Your task to perform on an android device: turn off javascript in the chrome app Image 0: 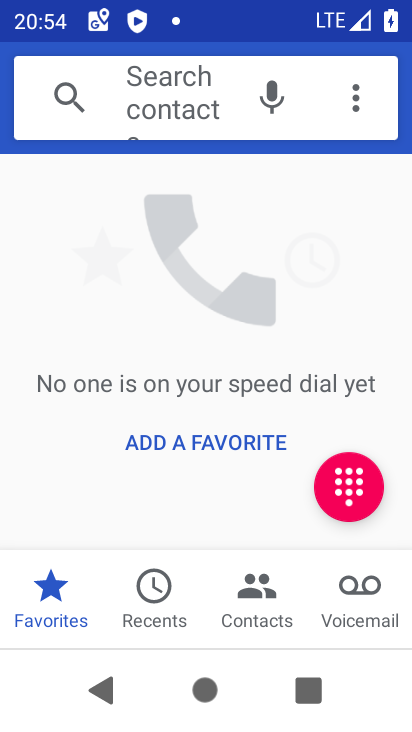
Step 0: press home button
Your task to perform on an android device: turn off javascript in the chrome app Image 1: 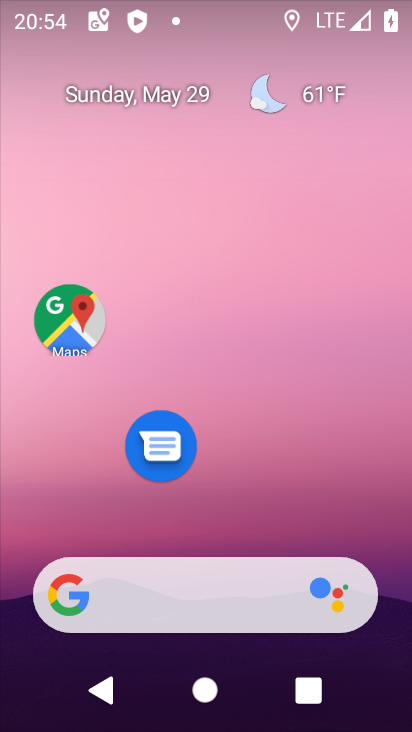
Step 1: drag from (221, 479) to (249, 226)
Your task to perform on an android device: turn off javascript in the chrome app Image 2: 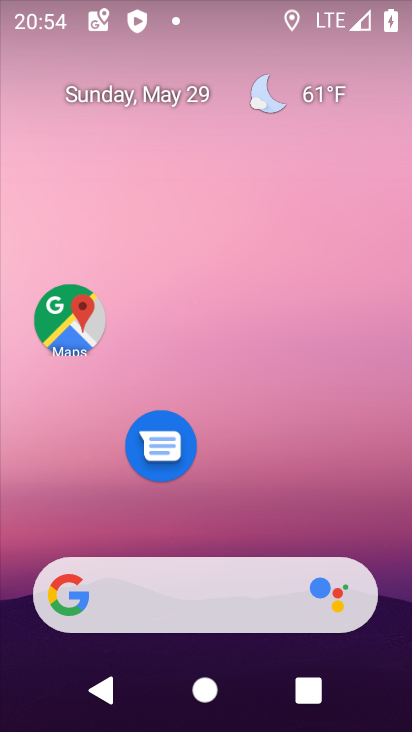
Step 2: drag from (243, 522) to (229, 136)
Your task to perform on an android device: turn off javascript in the chrome app Image 3: 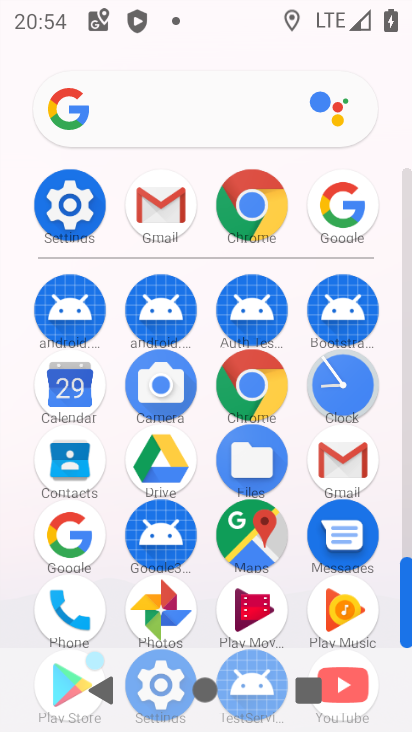
Step 3: click (250, 185)
Your task to perform on an android device: turn off javascript in the chrome app Image 4: 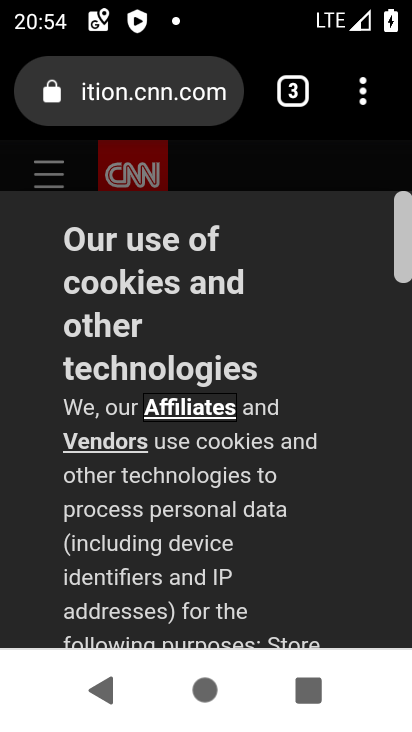
Step 4: drag from (371, 94) to (149, 484)
Your task to perform on an android device: turn off javascript in the chrome app Image 5: 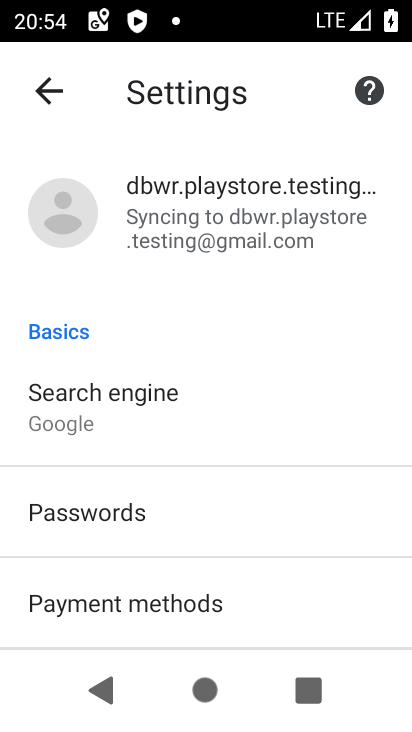
Step 5: drag from (217, 581) to (209, 292)
Your task to perform on an android device: turn off javascript in the chrome app Image 6: 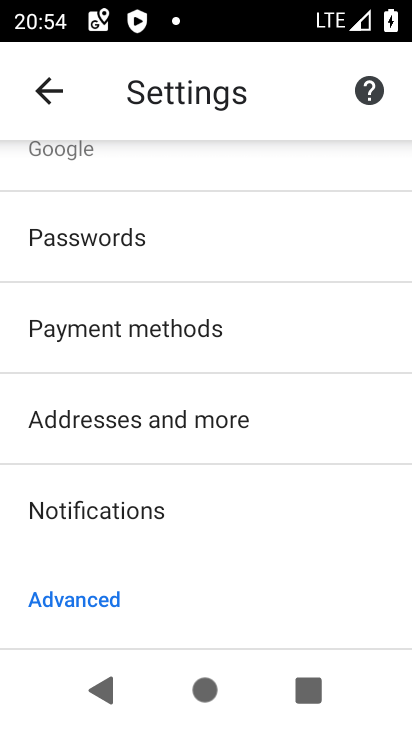
Step 6: drag from (225, 466) to (223, 279)
Your task to perform on an android device: turn off javascript in the chrome app Image 7: 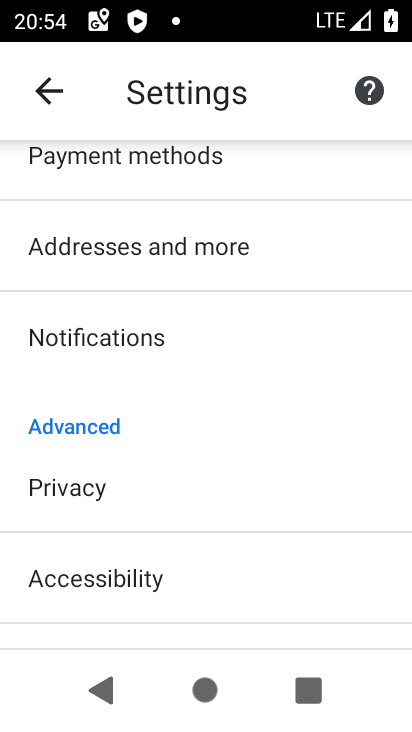
Step 7: drag from (235, 535) to (228, 290)
Your task to perform on an android device: turn off javascript in the chrome app Image 8: 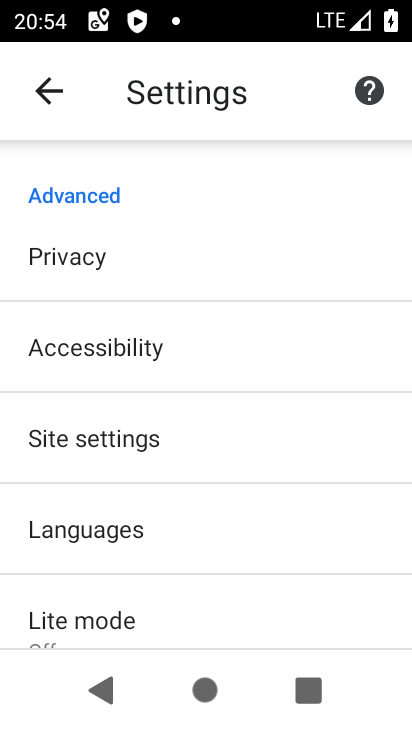
Step 8: click (142, 444)
Your task to perform on an android device: turn off javascript in the chrome app Image 9: 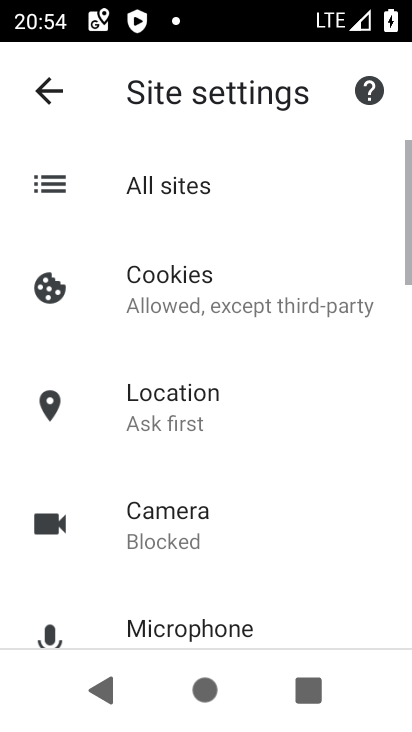
Step 9: drag from (189, 521) to (226, 348)
Your task to perform on an android device: turn off javascript in the chrome app Image 10: 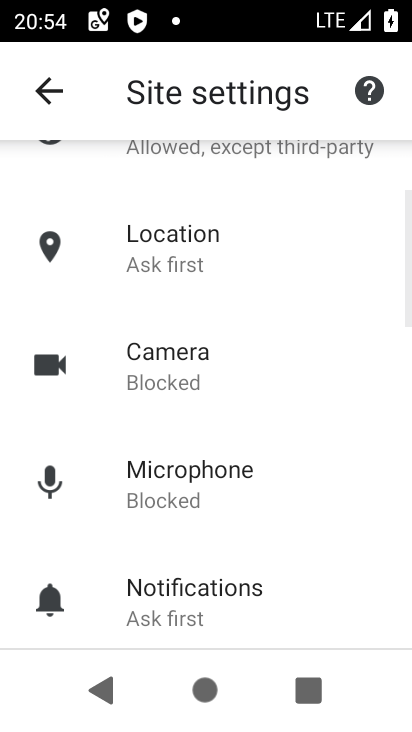
Step 10: drag from (203, 541) to (249, 274)
Your task to perform on an android device: turn off javascript in the chrome app Image 11: 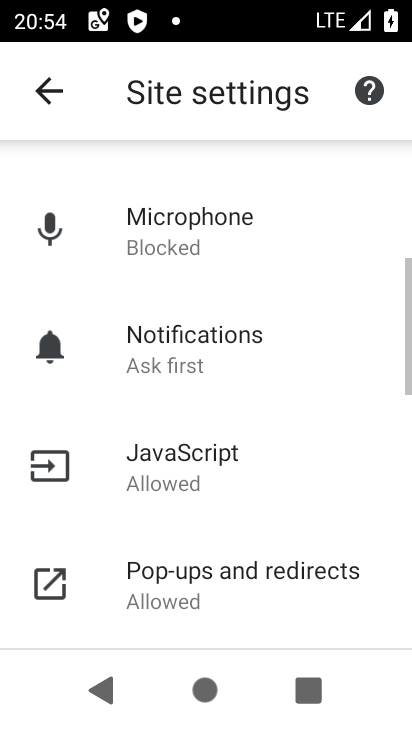
Step 11: click (228, 460)
Your task to perform on an android device: turn off javascript in the chrome app Image 12: 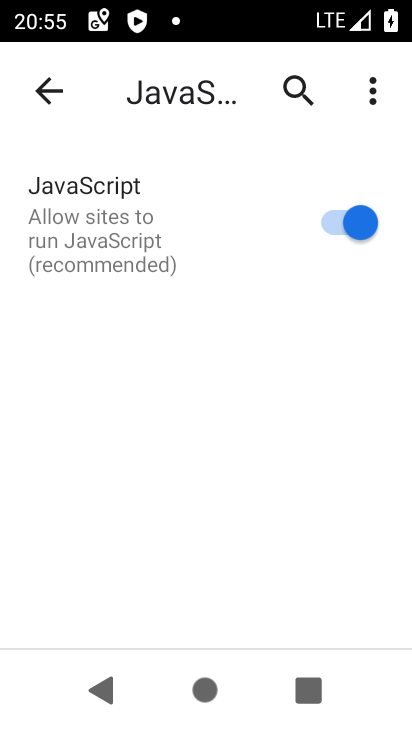
Step 12: click (324, 232)
Your task to perform on an android device: turn off javascript in the chrome app Image 13: 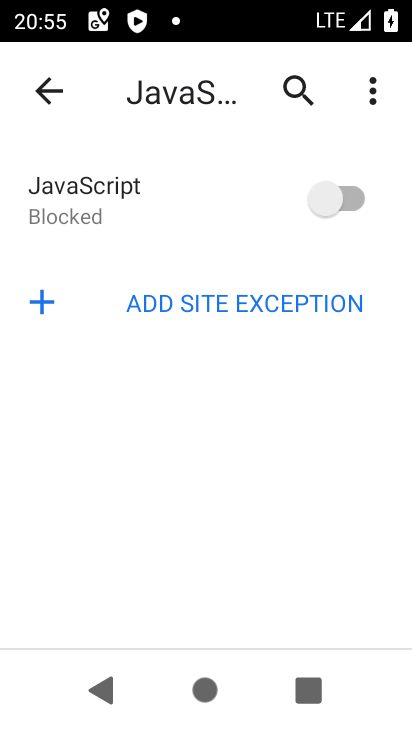
Step 13: task complete